Your task to perform on an android device: change notification settings in the gmail app Image 0: 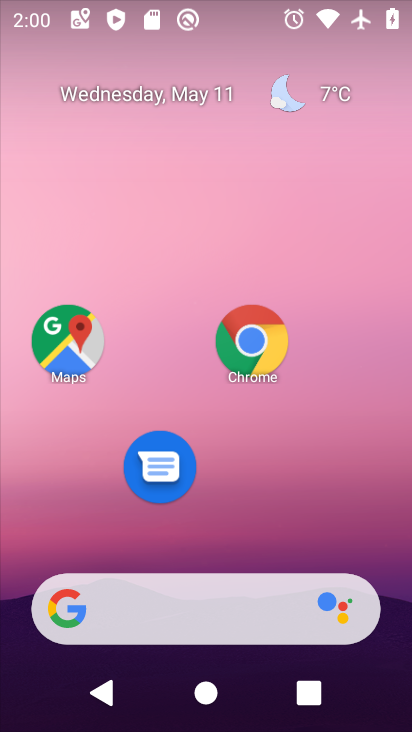
Step 0: press home button
Your task to perform on an android device: change notification settings in the gmail app Image 1: 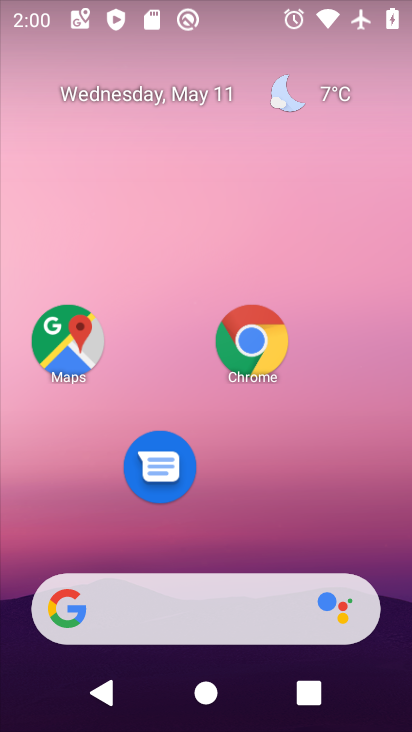
Step 1: drag from (180, 611) to (284, 147)
Your task to perform on an android device: change notification settings in the gmail app Image 2: 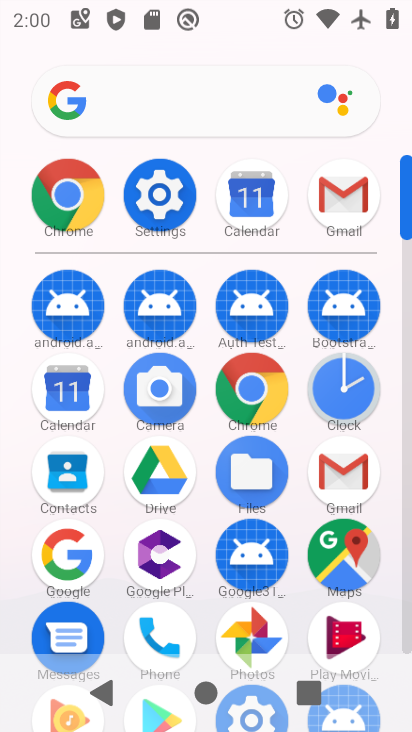
Step 2: click (336, 203)
Your task to perform on an android device: change notification settings in the gmail app Image 3: 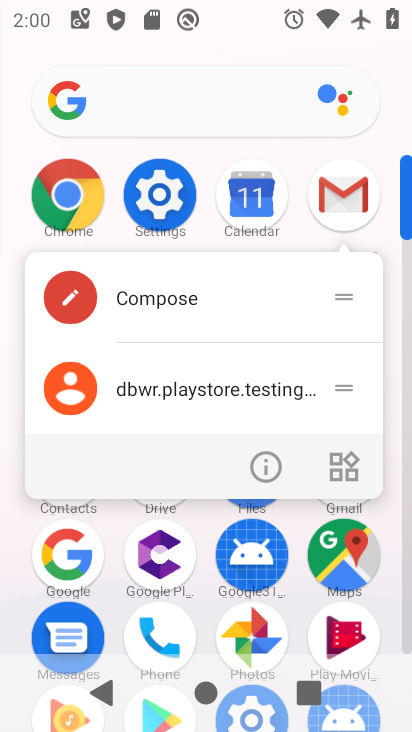
Step 3: click (336, 203)
Your task to perform on an android device: change notification settings in the gmail app Image 4: 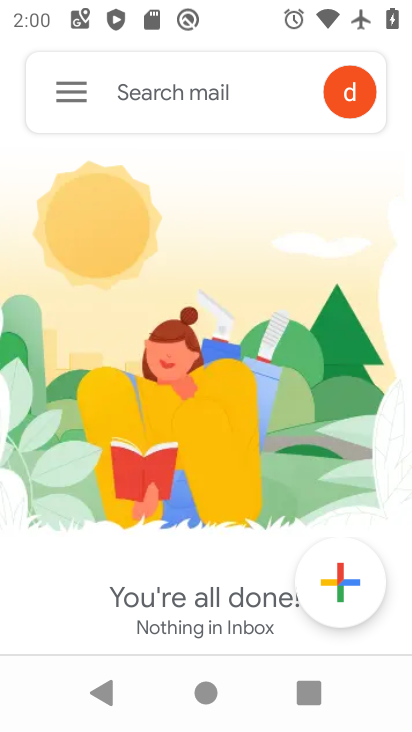
Step 4: click (56, 96)
Your task to perform on an android device: change notification settings in the gmail app Image 5: 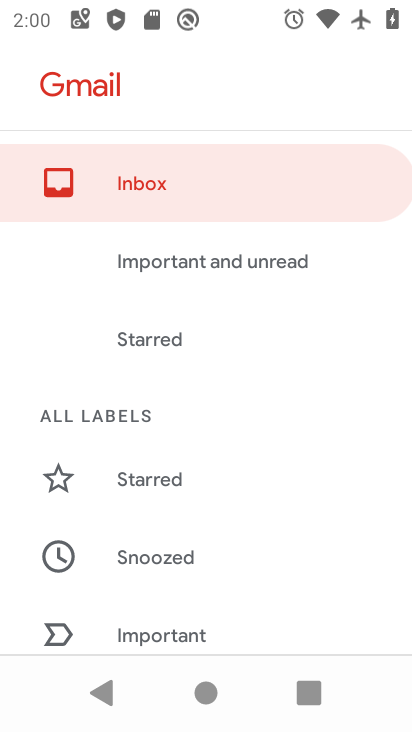
Step 5: drag from (199, 563) to (260, 123)
Your task to perform on an android device: change notification settings in the gmail app Image 6: 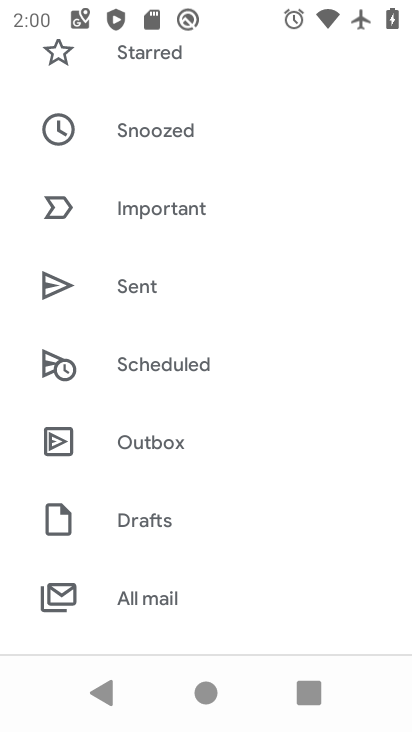
Step 6: drag from (217, 591) to (276, 146)
Your task to perform on an android device: change notification settings in the gmail app Image 7: 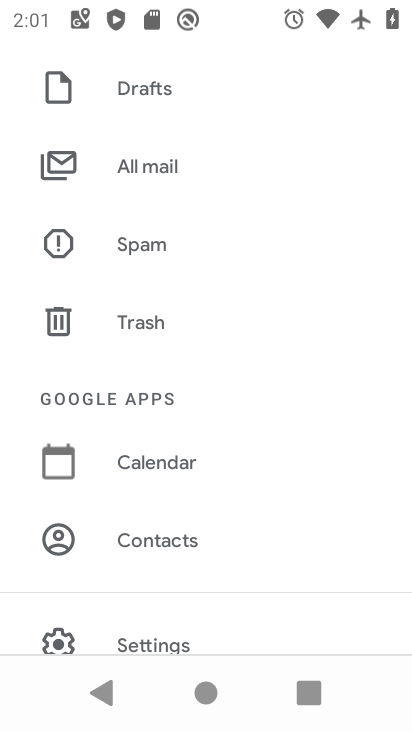
Step 7: drag from (268, 589) to (337, 102)
Your task to perform on an android device: change notification settings in the gmail app Image 8: 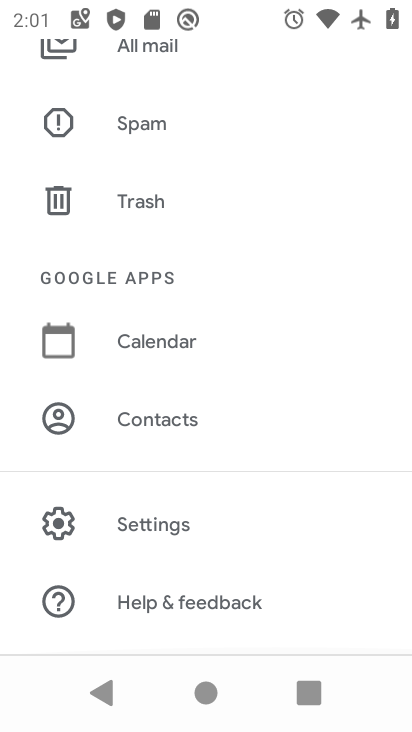
Step 8: click (142, 516)
Your task to perform on an android device: change notification settings in the gmail app Image 9: 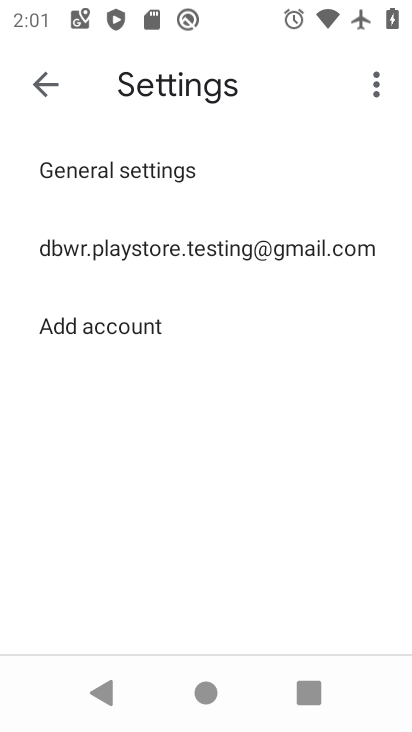
Step 9: click (227, 247)
Your task to perform on an android device: change notification settings in the gmail app Image 10: 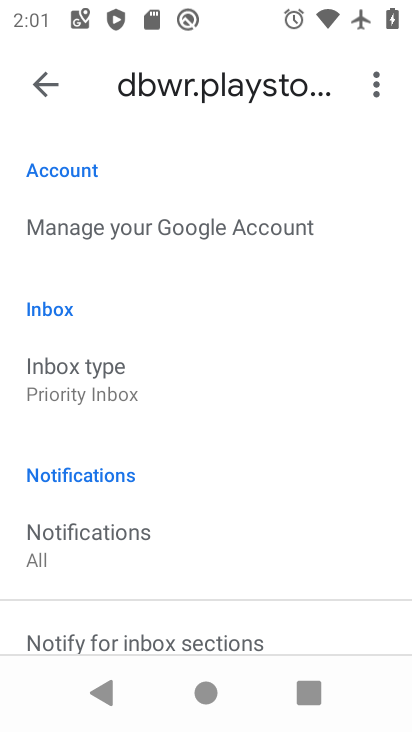
Step 10: click (129, 543)
Your task to perform on an android device: change notification settings in the gmail app Image 11: 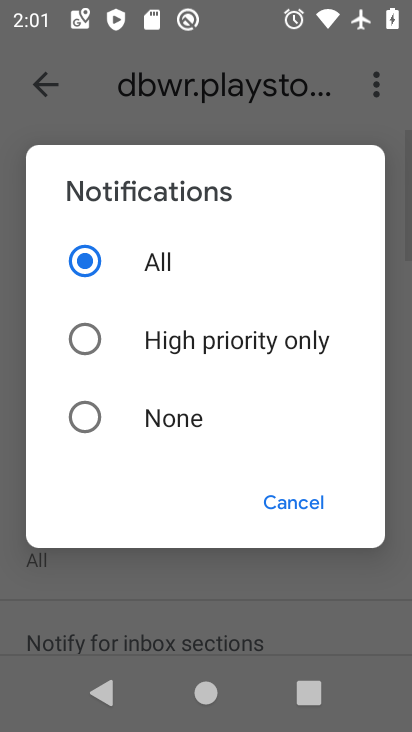
Step 11: click (84, 414)
Your task to perform on an android device: change notification settings in the gmail app Image 12: 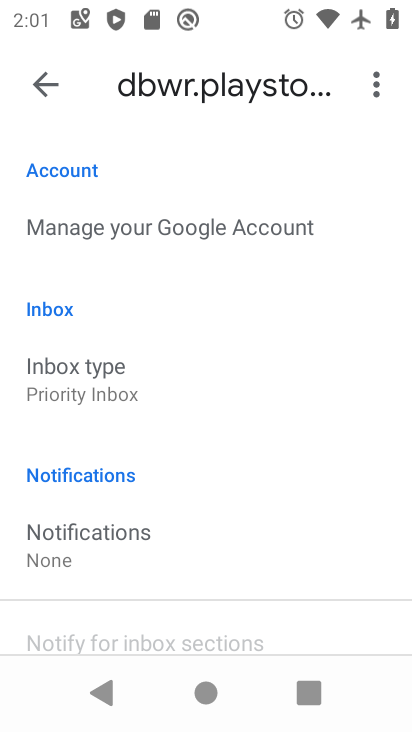
Step 12: task complete